Your task to perform on an android device: open sync settings in chrome Image 0: 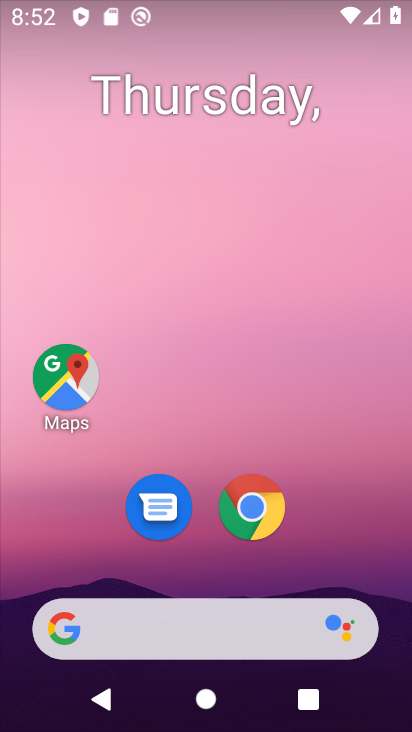
Step 0: drag from (207, 574) to (230, 11)
Your task to perform on an android device: open sync settings in chrome Image 1: 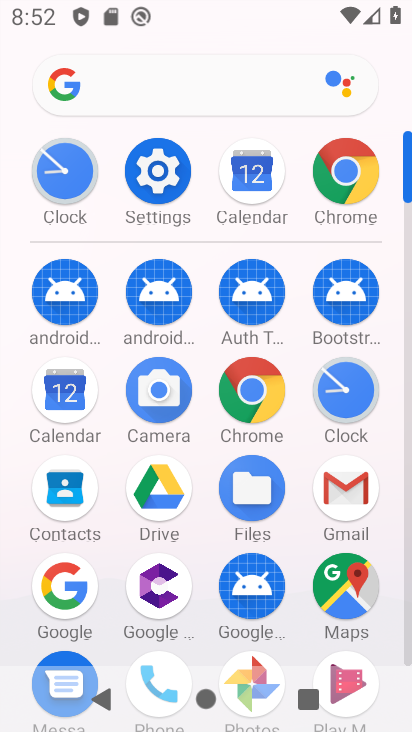
Step 1: click (263, 410)
Your task to perform on an android device: open sync settings in chrome Image 2: 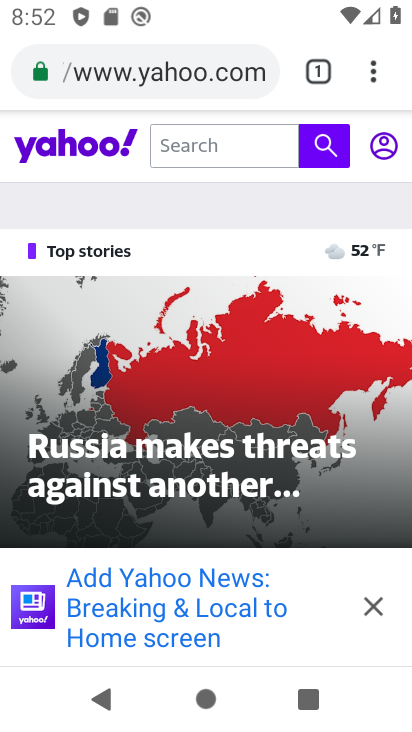
Step 2: click (379, 83)
Your task to perform on an android device: open sync settings in chrome Image 3: 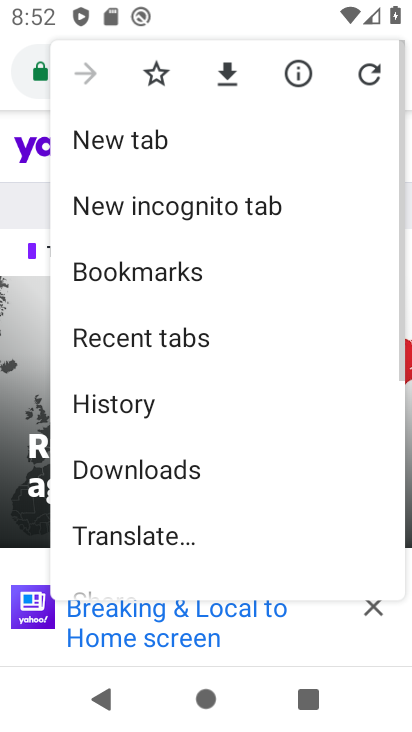
Step 3: drag from (161, 536) to (198, 163)
Your task to perform on an android device: open sync settings in chrome Image 4: 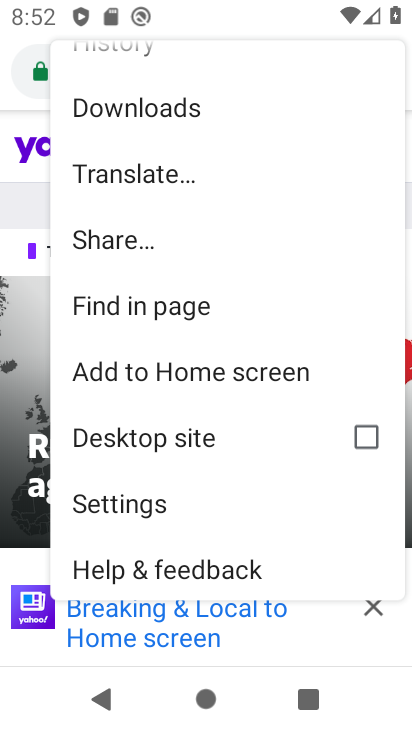
Step 4: drag from (149, 551) to (207, 179)
Your task to perform on an android device: open sync settings in chrome Image 5: 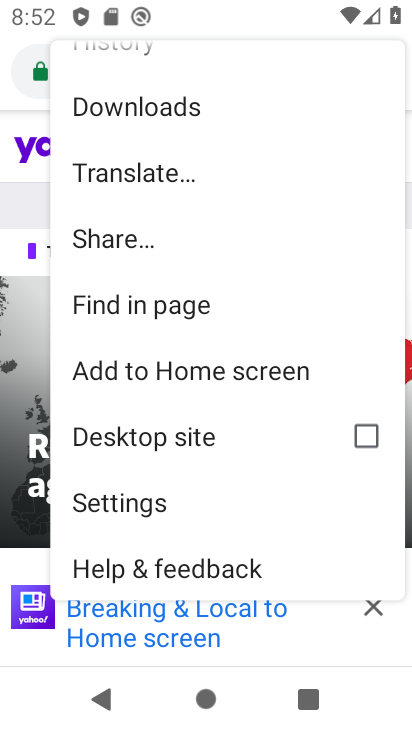
Step 5: click (120, 506)
Your task to perform on an android device: open sync settings in chrome Image 6: 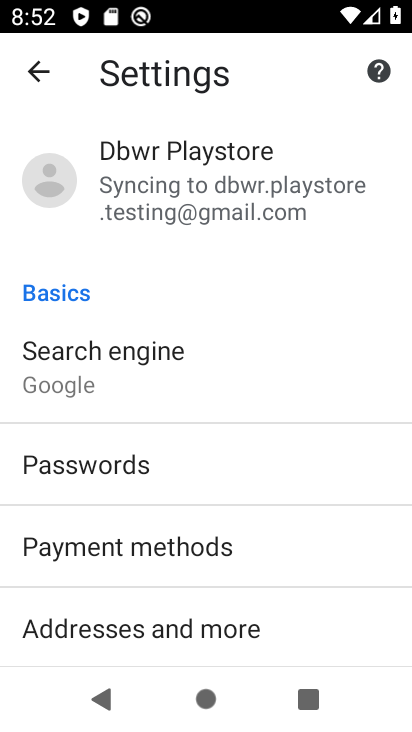
Step 6: click (194, 181)
Your task to perform on an android device: open sync settings in chrome Image 7: 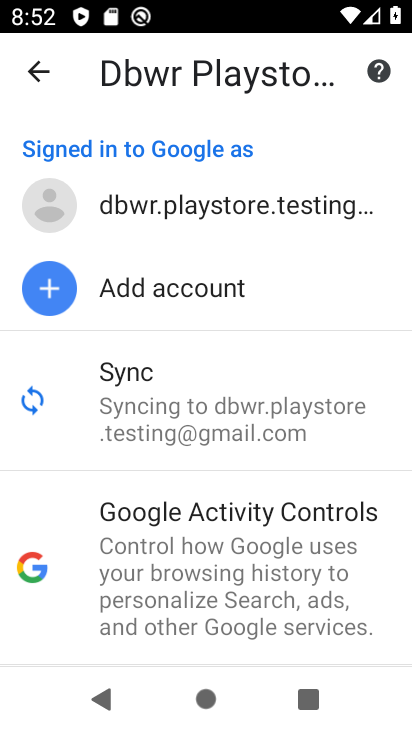
Step 7: click (206, 449)
Your task to perform on an android device: open sync settings in chrome Image 8: 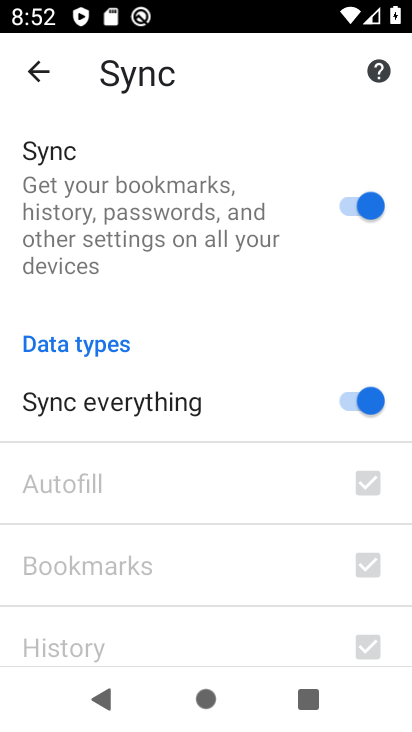
Step 8: task complete